Your task to perform on an android device: change keyboard looks Image 0: 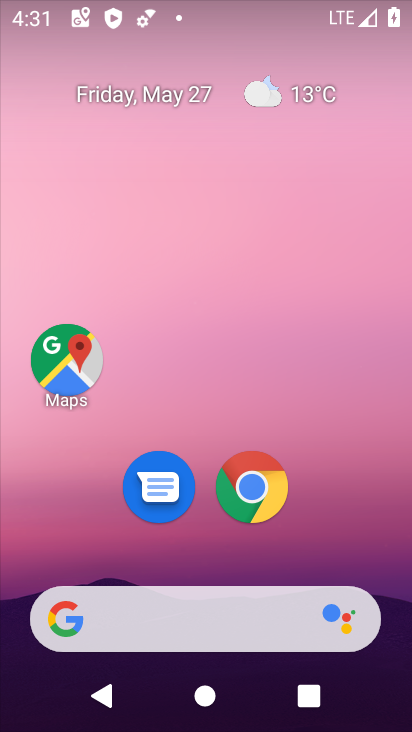
Step 0: drag from (340, 517) to (261, 144)
Your task to perform on an android device: change keyboard looks Image 1: 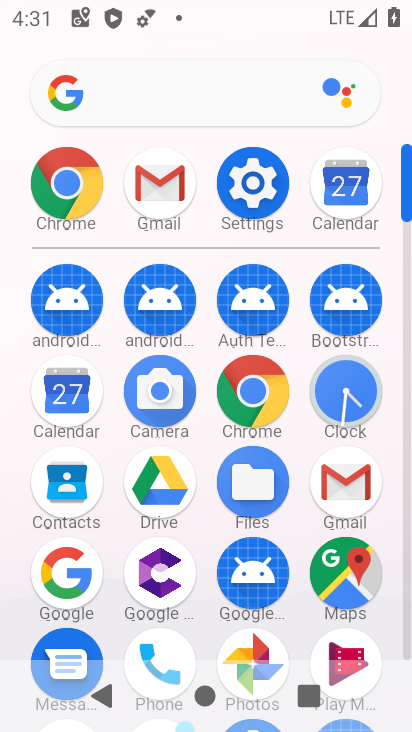
Step 1: click (264, 191)
Your task to perform on an android device: change keyboard looks Image 2: 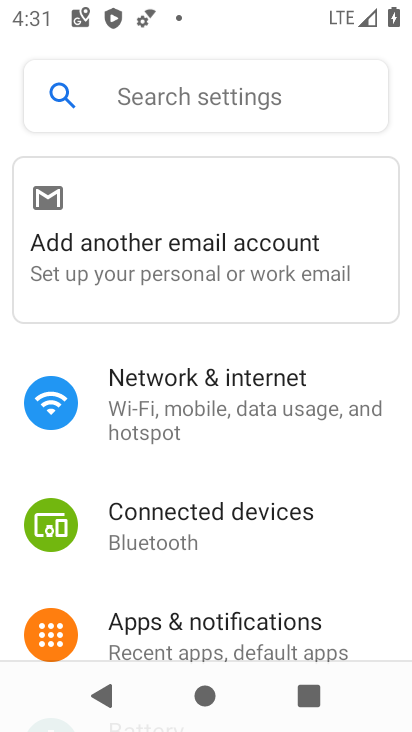
Step 2: drag from (282, 560) to (298, 74)
Your task to perform on an android device: change keyboard looks Image 3: 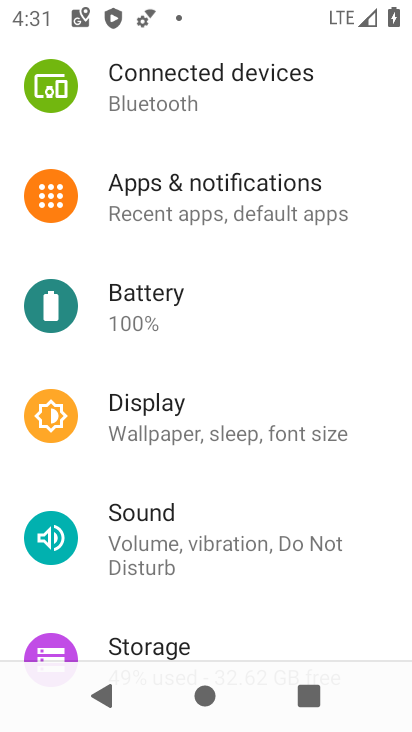
Step 3: drag from (229, 558) to (264, 216)
Your task to perform on an android device: change keyboard looks Image 4: 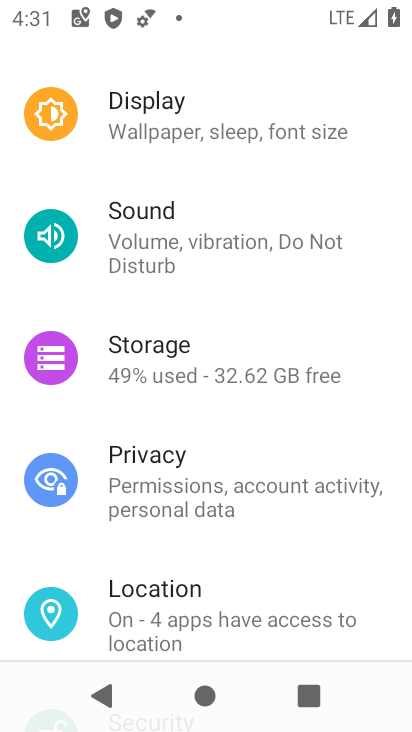
Step 4: drag from (226, 537) to (248, 211)
Your task to perform on an android device: change keyboard looks Image 5: 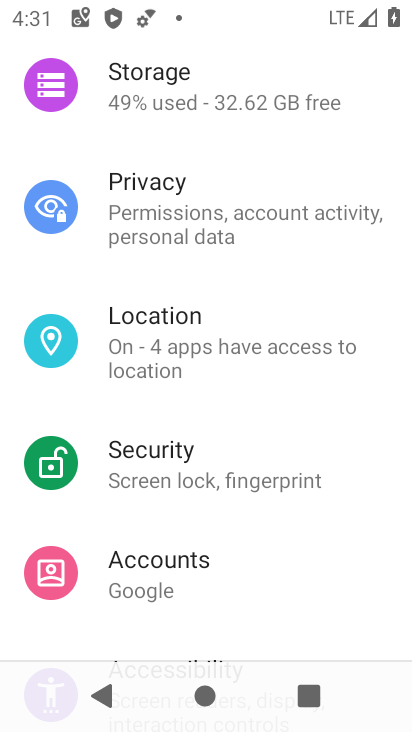
Step 5: drag from (250, 537) to (283, 189)
Your task to perform on an android device: change keyboard looks Image 6: 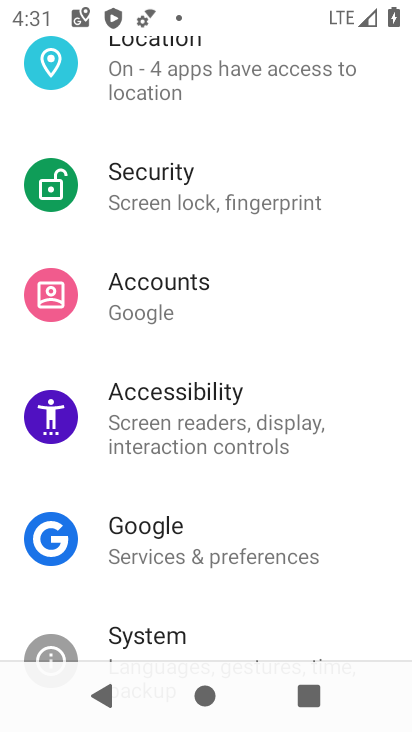
Step 6: drag from (311, 600) to (253, 188)
Your task to perform on an android device: change keyboard looks Image 7: 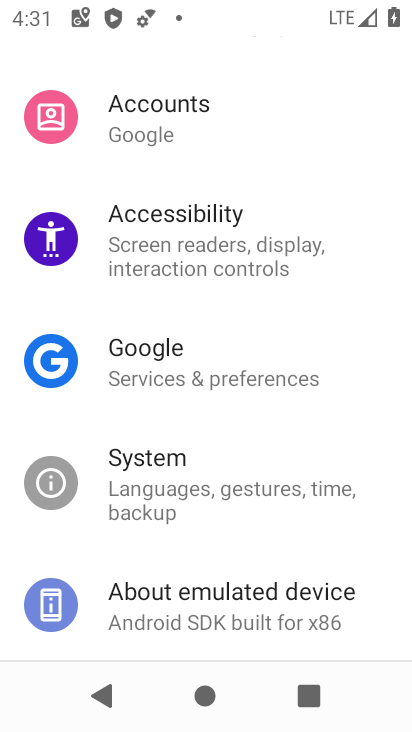
Step 7: click (193, 486)
Your task to perform on an android device: change keyboard looks Image 8: 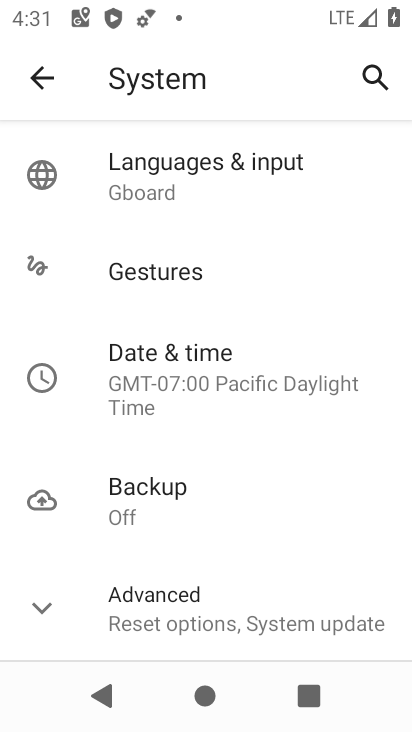
Step 8: click (199, 165)
Your task to perform on an android device: change keyboard looks Image 9: 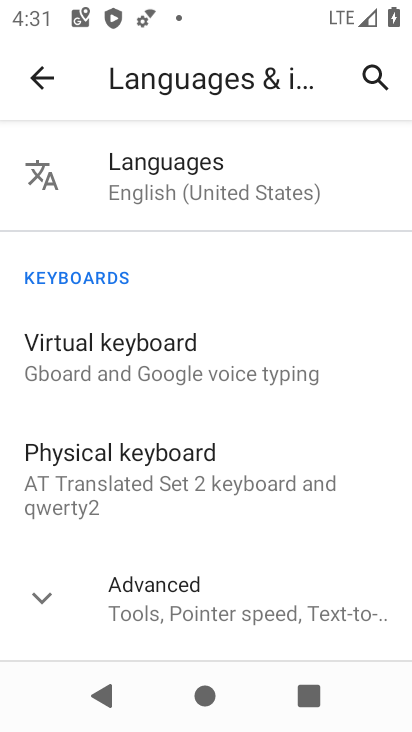
Step 9: click (159, 369)
Your task to perform on an android device: change keyboard looks Image 10: 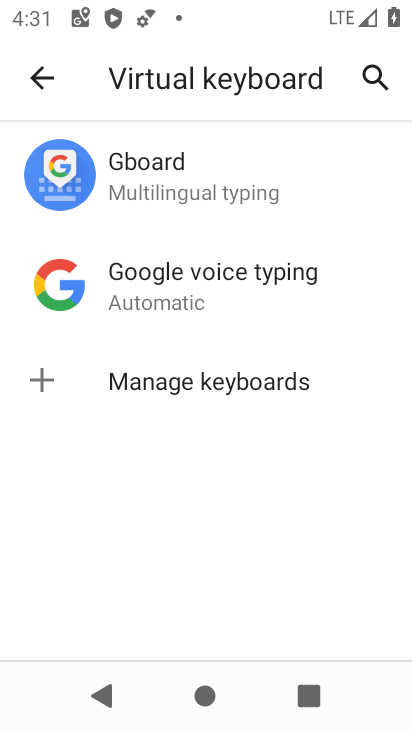
Step 10: click (183, 191)
Your task to perform on an android device: change keyboard looks Image 11: 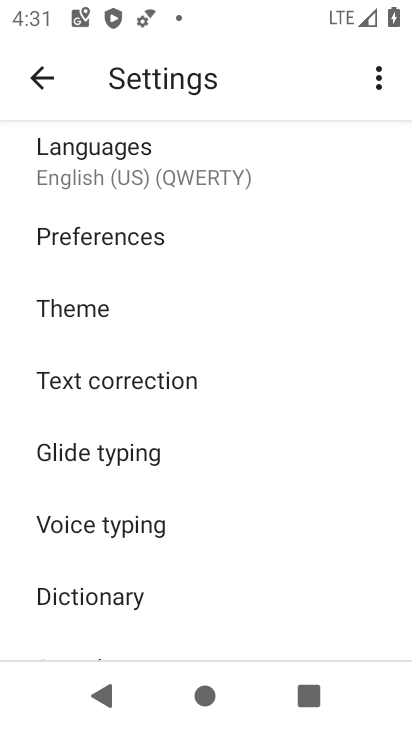
Step 11: click (90, 311)
Your task to perform on an android device: change keyboard looks Image 12: 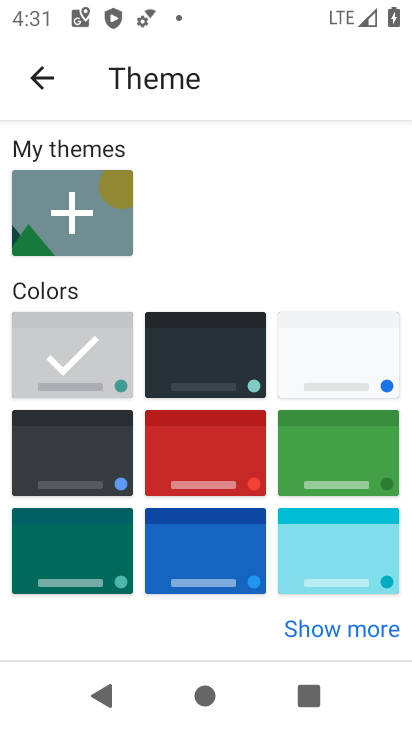
Step 12: click (328, 374)
Your task to perform on an android device: change keyboard looks Image 13: 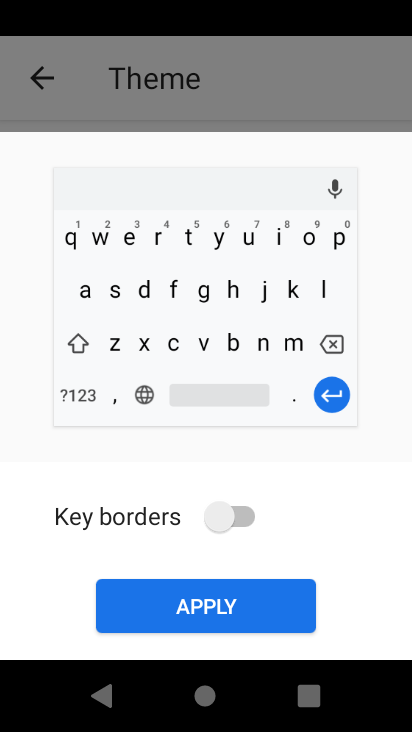
Step 13: click (230, 628)
Your task to perform on an android device: change keyboard looks Image 14: 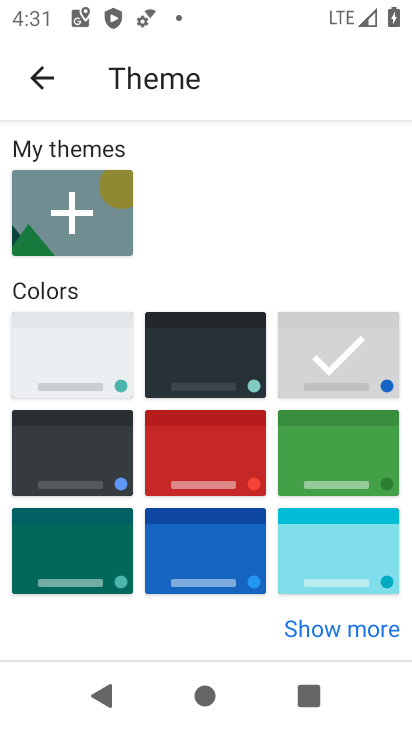
Step 14: task complete